Your task to perform on an android device: Open Yahoo.com Image 0: 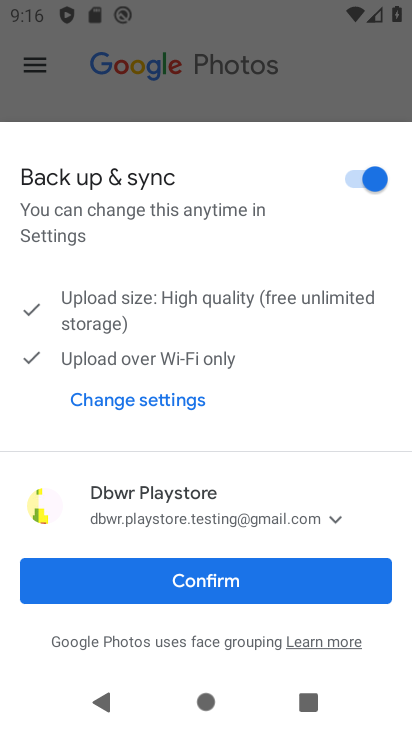
Step 0: press home button
Your task to perform on an android device: Open Yahoo.com Image 1: 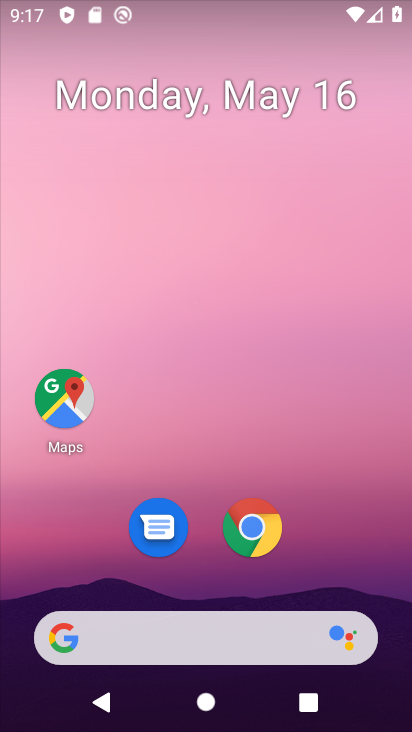
Step 1: click (257, 525)
Your task to perform on an android device: Open Yahoo.com Image 2: 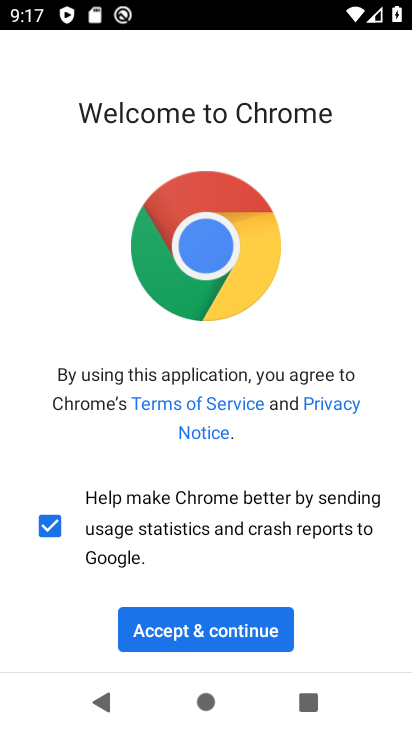
Step 2: click (193, 623)
Your task to perform on an android device: Open Yahoo.com Image 3: 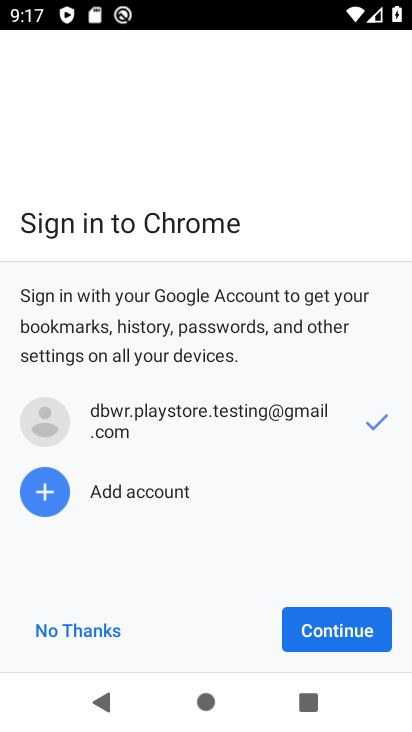
Step 3: click (340, 622)
Your task to perform on an android device: Open Yahoo.com Image 4: 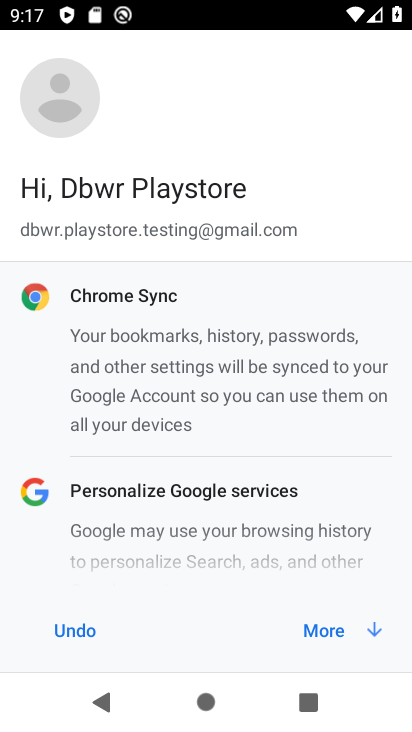
Step 4: click (331, 623)
Your task to perform on an android device: Open Yahoo.com Image 5: 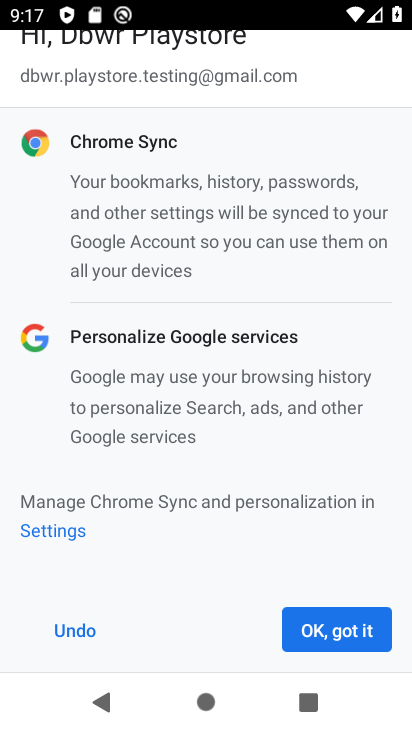
Step 5: click (331, 623)
Your task to perform on an android device: Open Yahoo.com Image 6: 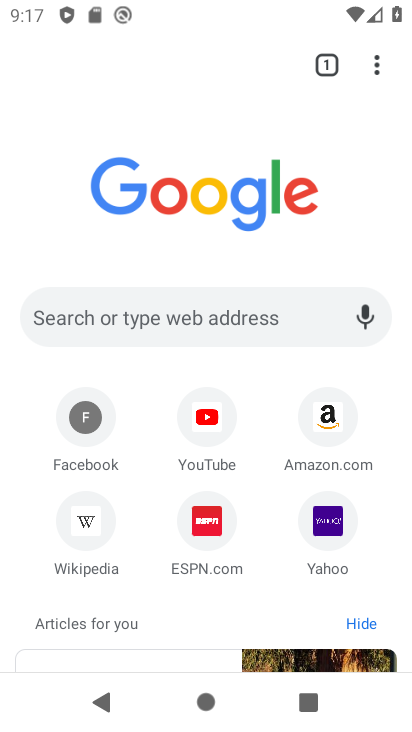
Step 6: click (327, 521)
Your task to perform on an android device: Open Yahoo.com Image 7: 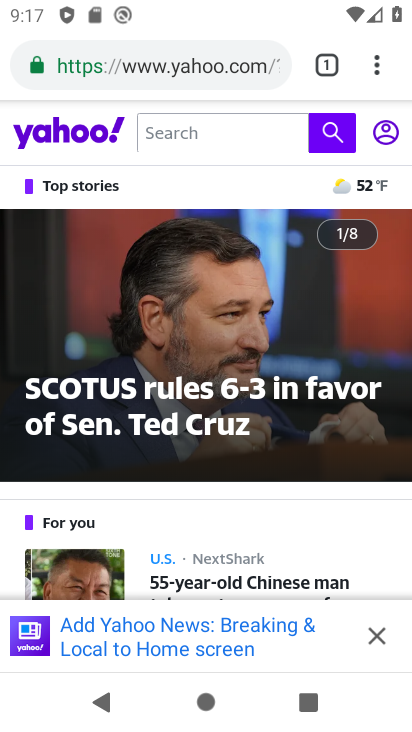
Step 7: task complete